Your task to perform on an android device: turn off smart reply in the gmail app Image 0: 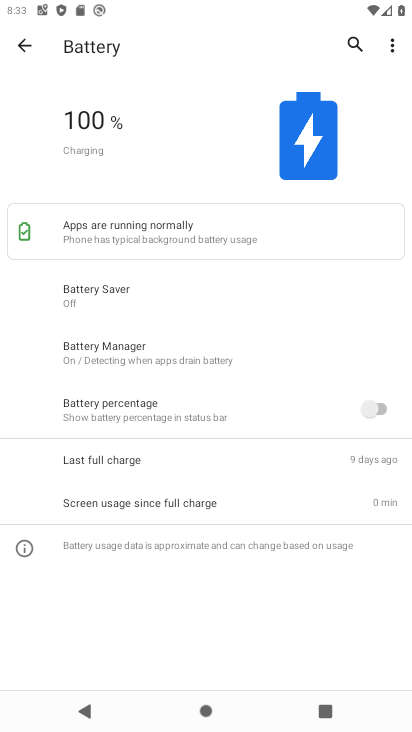
Step 0: press home button
Your task to perform on an android device: turn off smart reply in the gmail app Image 1: 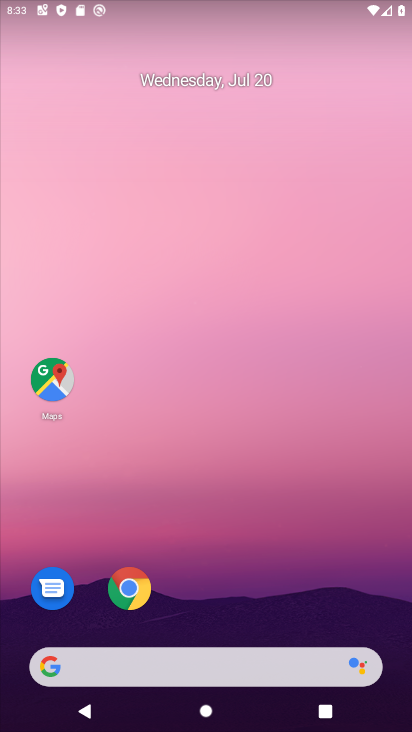
Step 1: drag from (227, 634) to (178, 15)
Your task to perform on an android device: turn off smart reply in the gmail app Image 2: 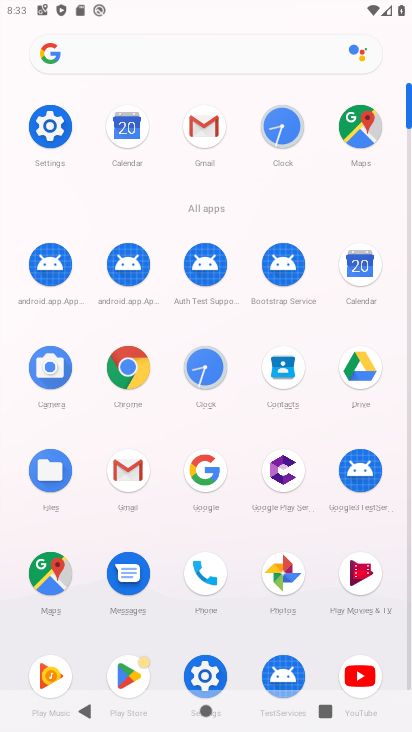
Step 2: click (128, 463)
Your task to perform on an android device: turn off smart reply in the gmail app Image 3: 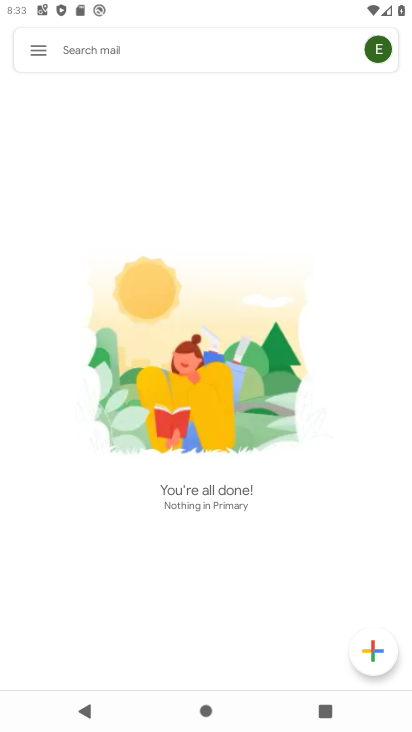
Step 3: click (27, 49)
Your task to perform on an android device: turn off smart reply in the gmail app Image 4: 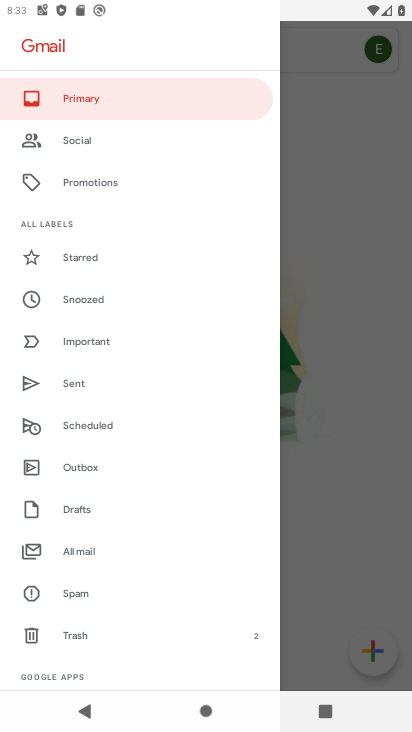
Step 4: drag from (155, 526) to (129, 69)
Your task to perform on an android device: turn off smart reply in the gmail app Image 5: 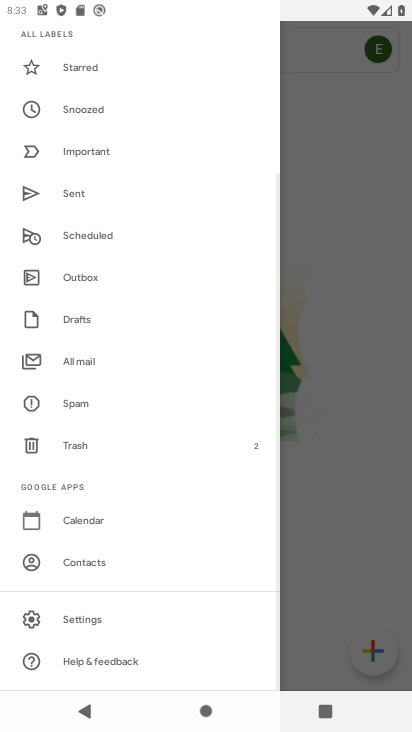
Step 5: click (29, 606)
Your task to perform on an android device: turn off smart reply in the gmail app Image 6: 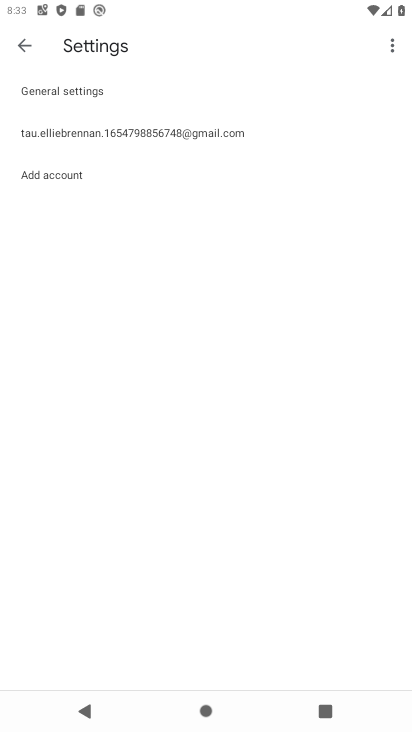
Step 6: click (26, 137)
Your task to perform on an android device: turn off smart reply in the gmail app Image 7: 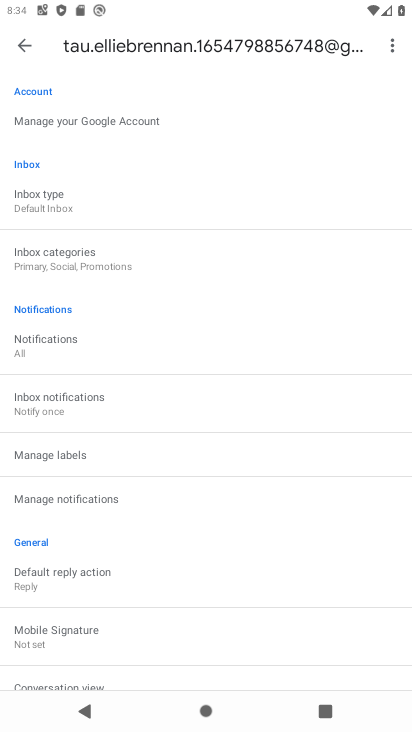
Step 7: drag from (124, 551) to (90, 147)
Your task to perform on an android device: turn off smart reply in the gmail app Image 8: 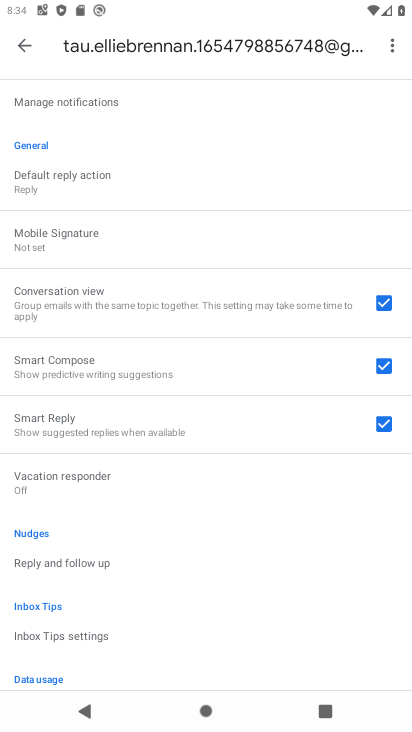
Step 8: click (382, 419)
Your task to perform on an android device: turn off smart reply in the gmail app Image 9: 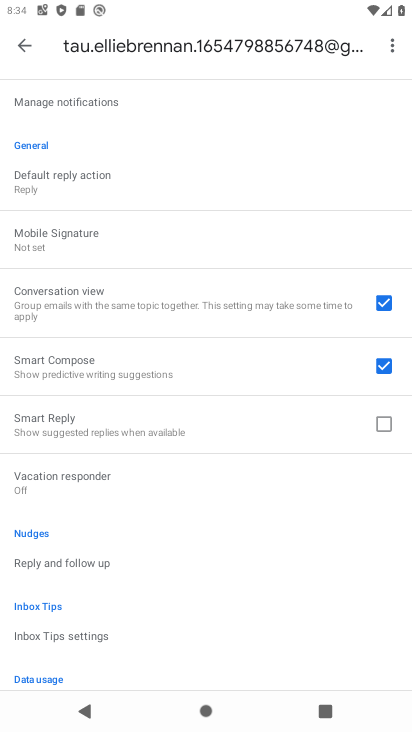
Step 9: task complete